Your task to perform on an android device: toggle priority inbox in the gmail app Image 0: 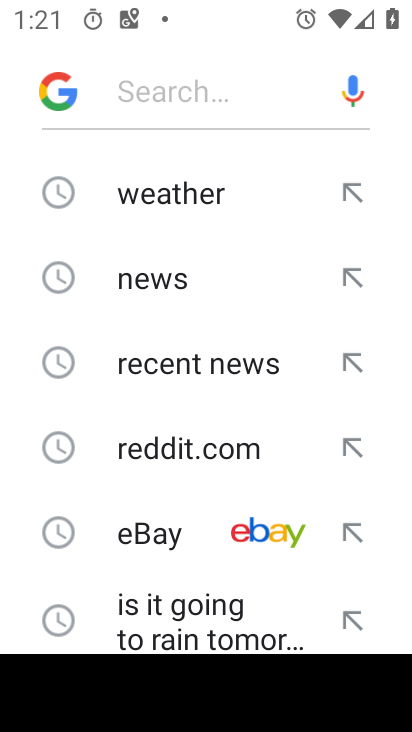
Step 0: press back button
Your task to perform on an android device: toggle priority inbox in the gmail app Image 1: 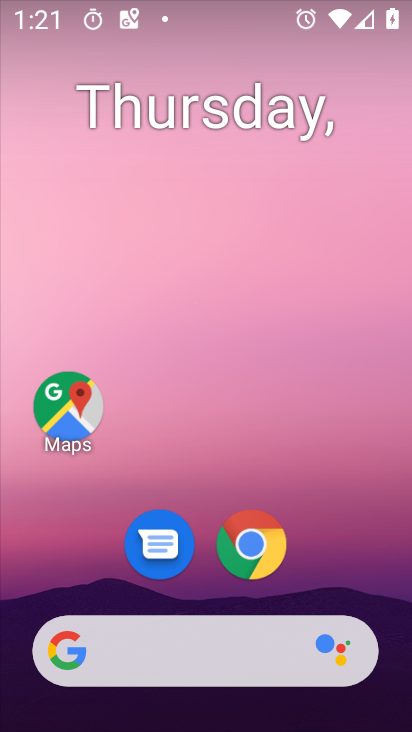
Step 1: drag from (96, 406) to (245, 157)
Your task to perform on an android device: toggle priority inbox in the gmail app Image 2: 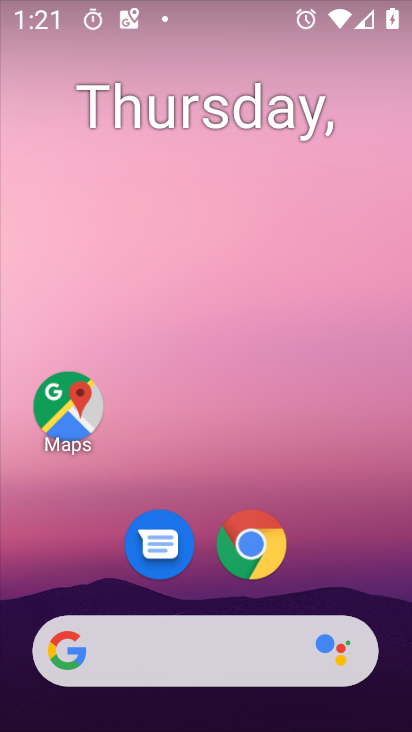
Step 2: drag from (37, 552) to (225, 145)
Your task to perform on an android device: toggle priority inbox in the gmail app Image 3: 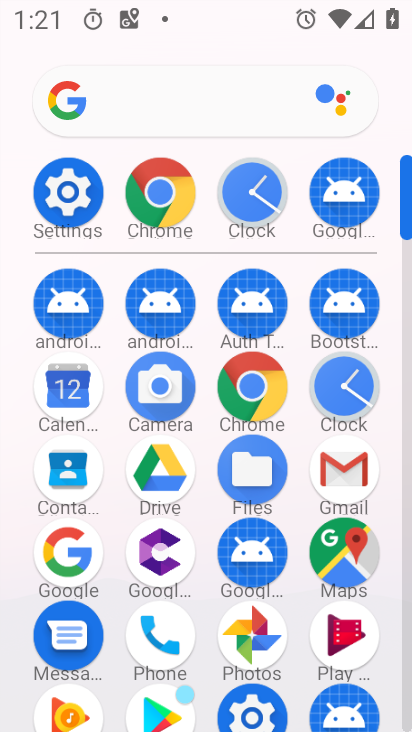
Step 3: click (365, 465)
Your task to perform on an android device: toggle priority inbox in the gmail app Image 4: 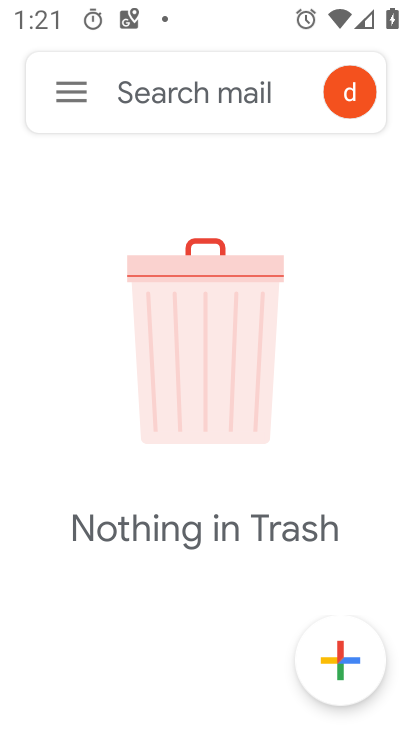
Step 4: click (70, 85)
Your task to perform on an android device: toggle priority inbox in the gmail app Image 5: 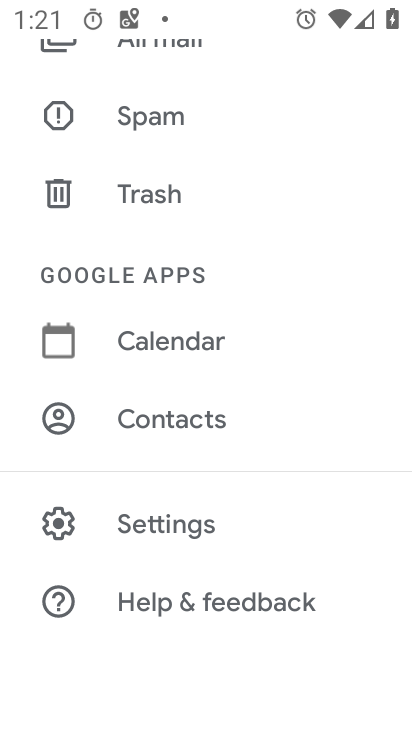
Step 5: click (150, 529)
Your task to perform on an android device: toggle priority inbox in the gmail app Image 6: 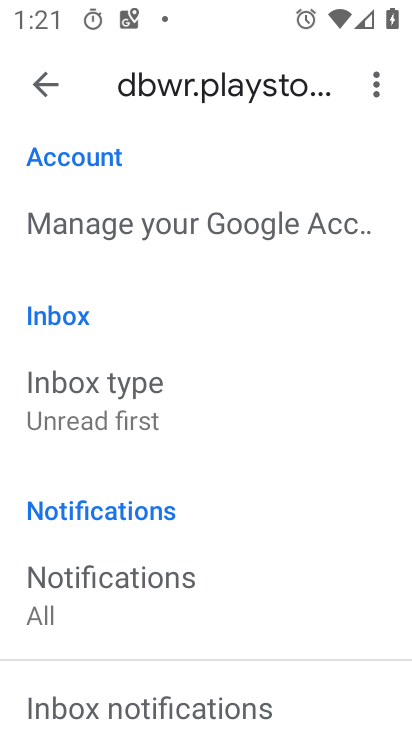
Step 6: click (130, 414)
Your task to perform on an android device: toggle priority inbox in the gmail app Image 7: 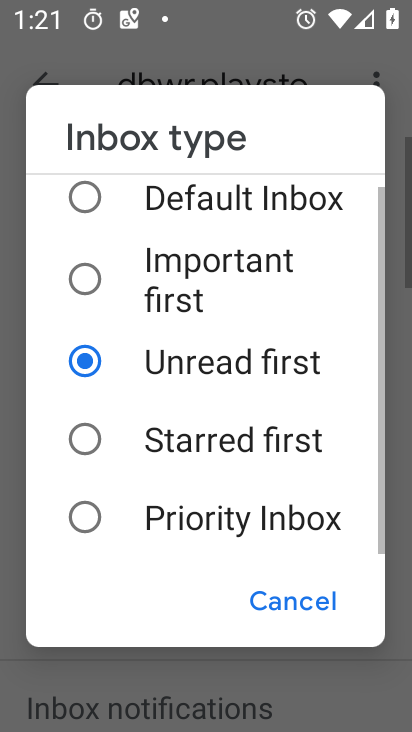
Step 7: click (160, 513)
Your task to perform on an android device: toggle priority inbox in the gmail app Image 8: 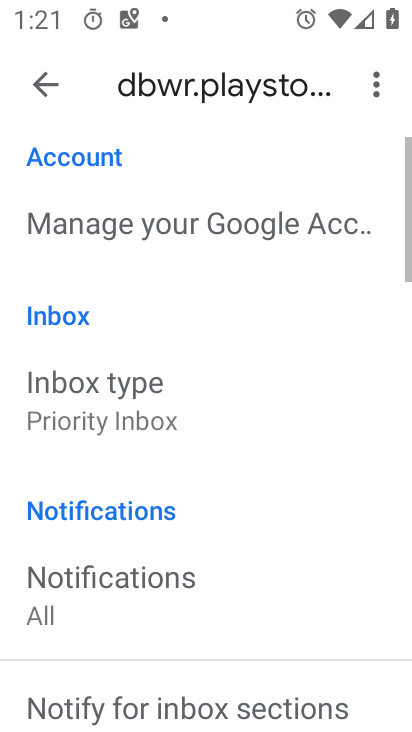
Step 8: task complete